Your task to perform on an android device: Go to Android settings Image 0: 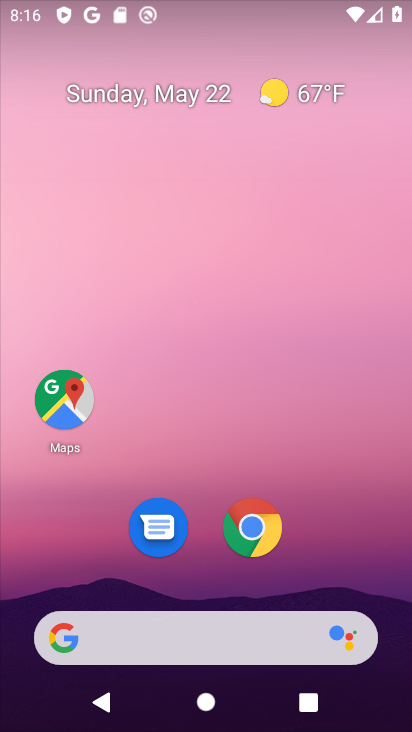
Step 0: drag from (207, 580) to (218, 0)
Your task to perform on an android device: Go to Android settings Image 1: 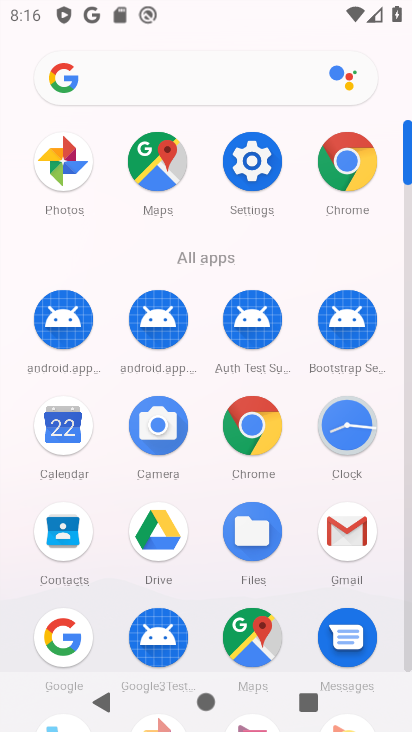
Step 1: click (246, 162)
Your task to perform on an android device: Go to Android settings Image 2: 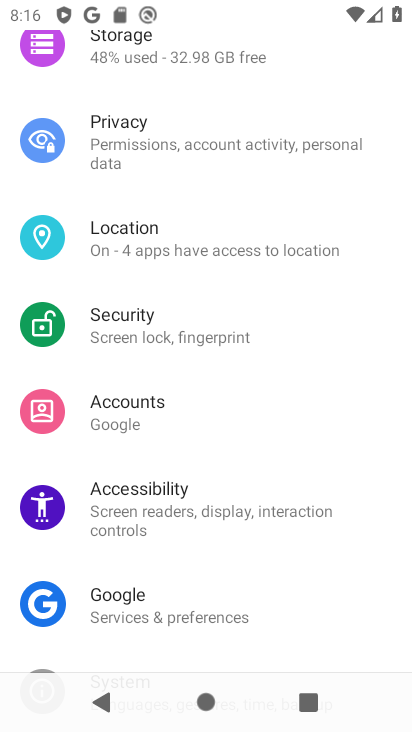
Step 2: drag from (223, 647) to (223, 65)
Your task to perform on an android device: Go to Android settings Image 3: 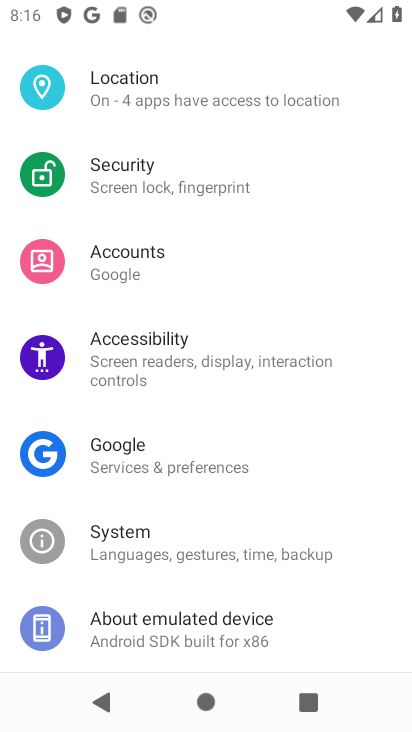
Step 3: click (279, 634)
Your task to perform on an android device: Go to Android settings Image 4: 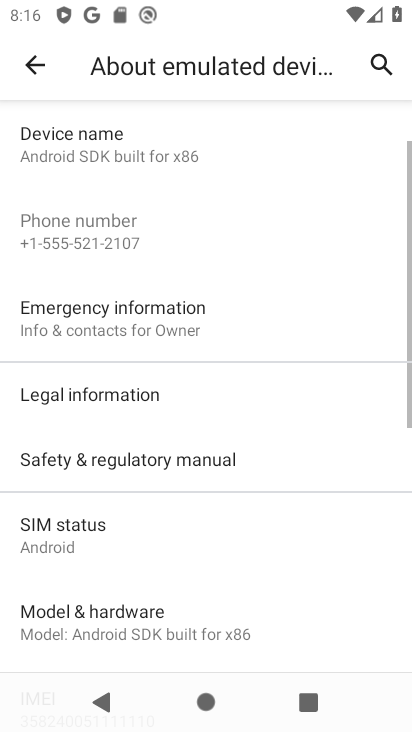
Step 4: drag from (282, 624) to (278, 104)
Your task to perform on an android device: Go to Android settings Image 5: 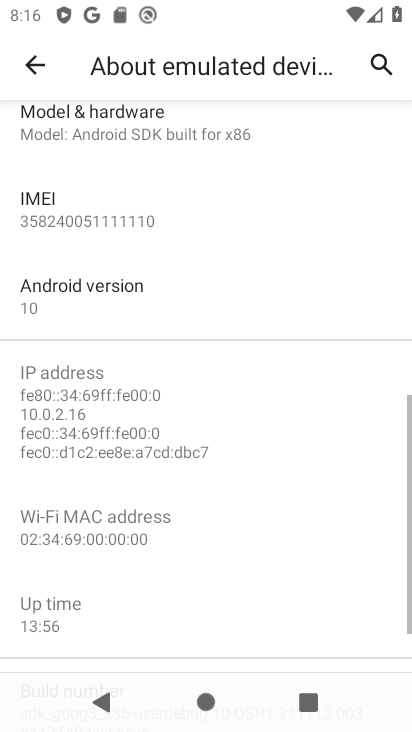
Step 5: click (68, 301)
Your task to perform on an android device: Go to Android settings Image 6: 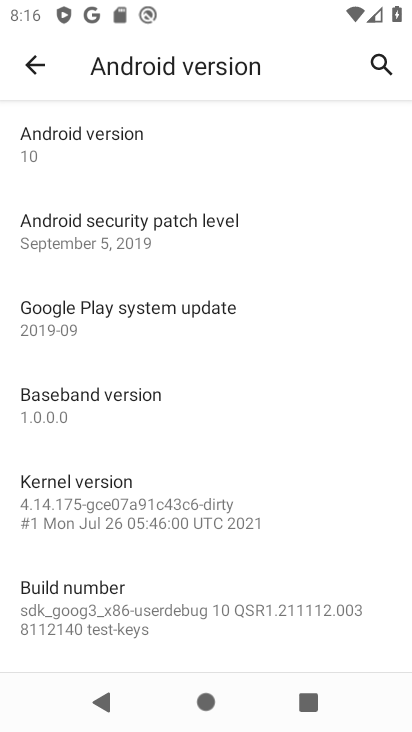
Step 6: task complete